Your task to perform on an android device: change the clock style Image 0: 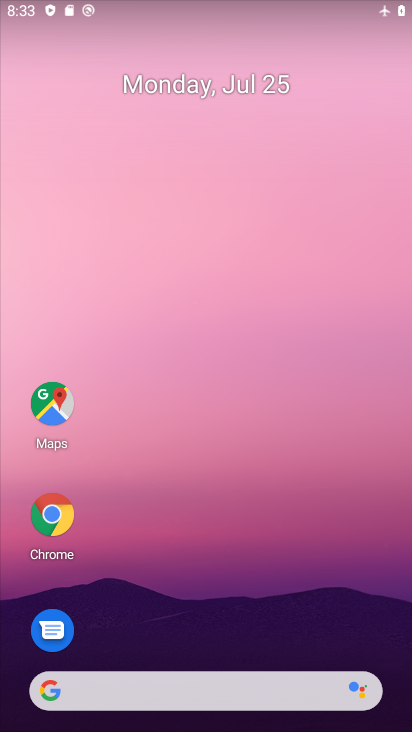
Step 0: click (292, 37)
Your task to perform on an android device: change the clock style Image 1: 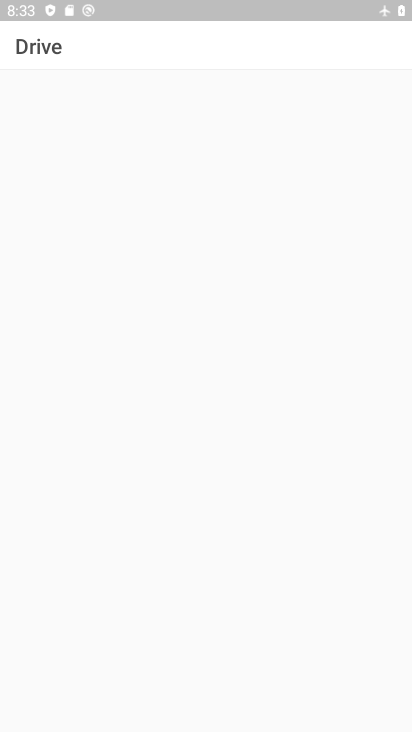
Step 1: press home button
Your task to perform on an android device: change the clock style Image 2: 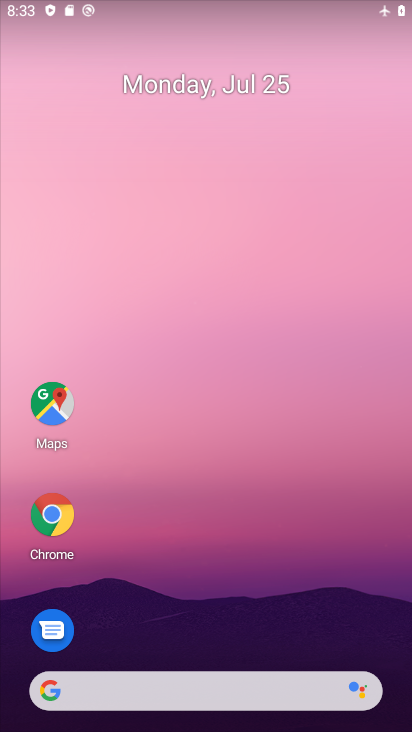
Step 2: drag from (61, 592) to (241, 161)
Your task to perform on an android device: change the clock style Image 3: 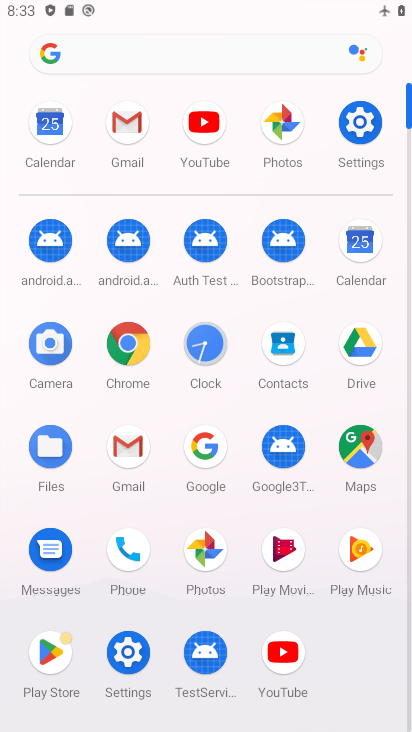
Step 3: click (212, 355)
Your task to perform on an android device: change the clock style Image 4: 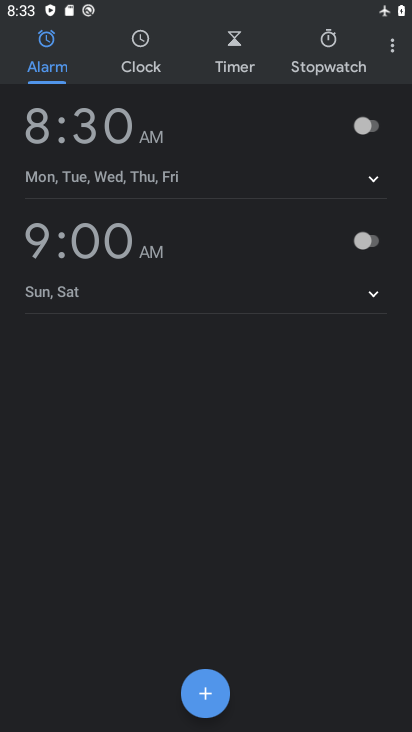
Step 4: click (144, 64)
Your task to perform on an android device: change the clock style Image 5: 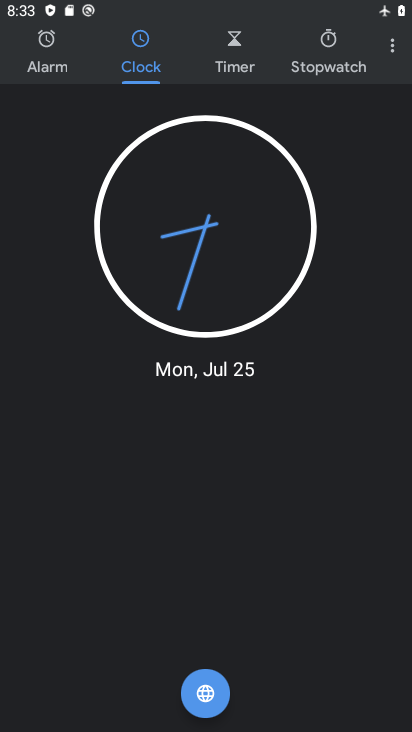
Step 5: click (383, 35)
Your task to perform on an android device: change the clock style Image 6: 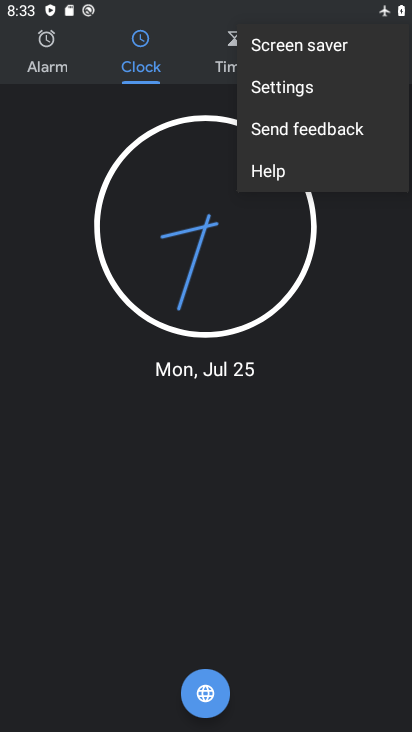
Step 6: click (289, 93)
Your task to perform on an android device: change the clock style Image 7: 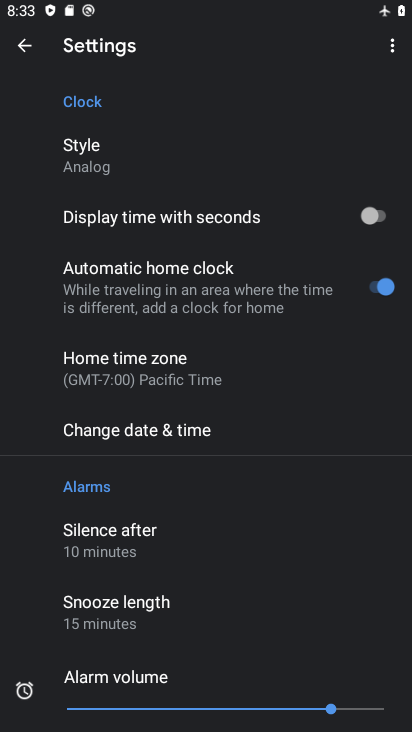
Step 7: click (146, 156)
Your task to perform on an android device: change the clock style Image 8: 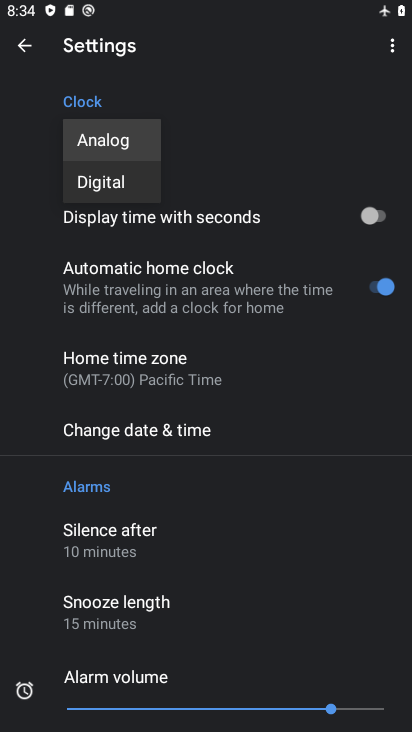
Step 8: click (124, 175)
Your task to perform on an android device: change the clock style Image 9: 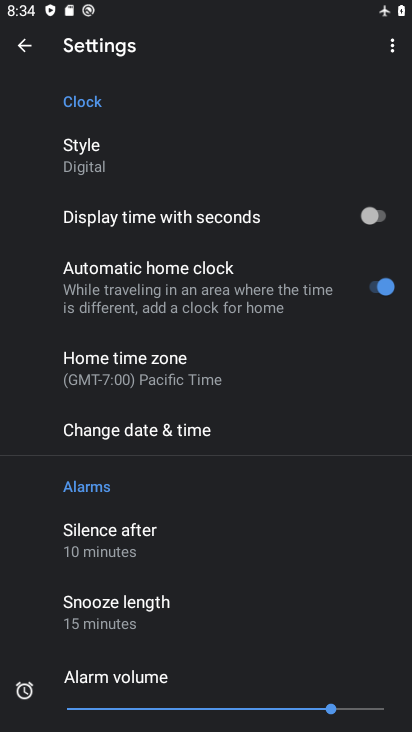
Step 9: task complete